Your task to perform on an android device: Search for hotels in Zurich Image 0: 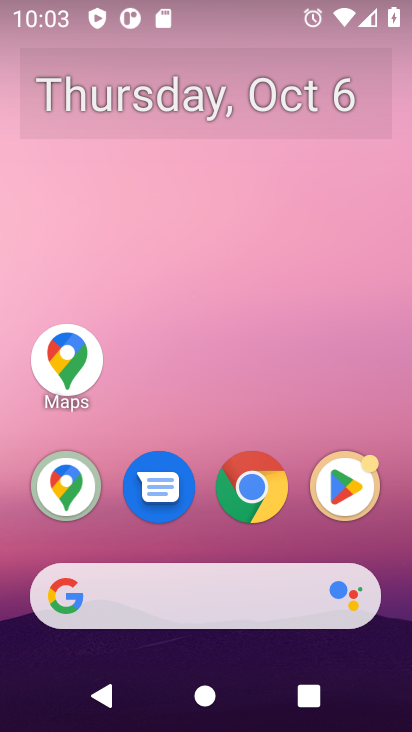
Step 0: drag from (185, 399) to (249, 28)
Your task to perform on an android device: Search for hotels in Zurich Image 1: 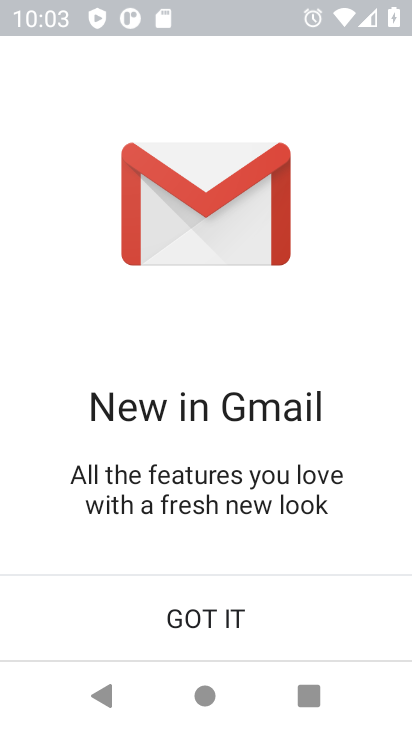
Step 1: press home button
Your task to perform on an android device: Search for hotels in Zurich Image 2: 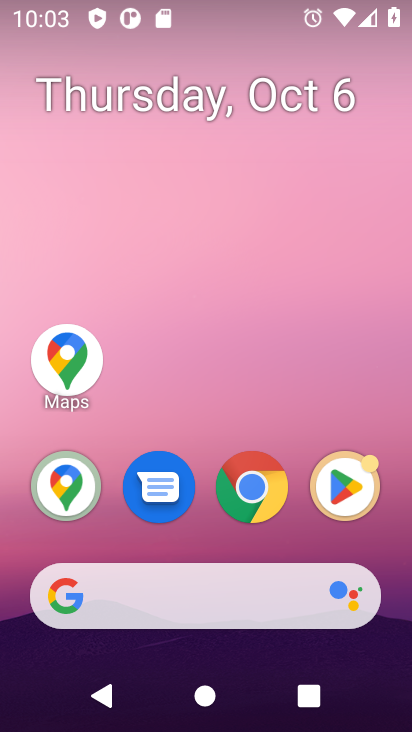
Step 2: drag from (205, 544) to (273, 26)
Your task to perform on an android device: Search for hotels in Zurich Image 3: 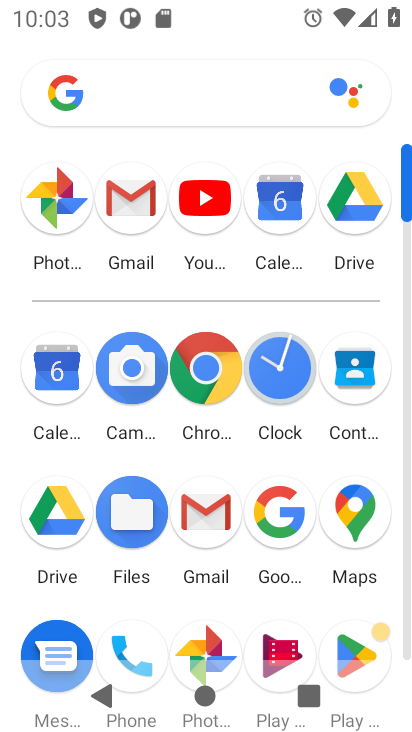
Step 3: click (198, 364)
Your task to perform on an android device: Search for hotels in Zurich Image 4: 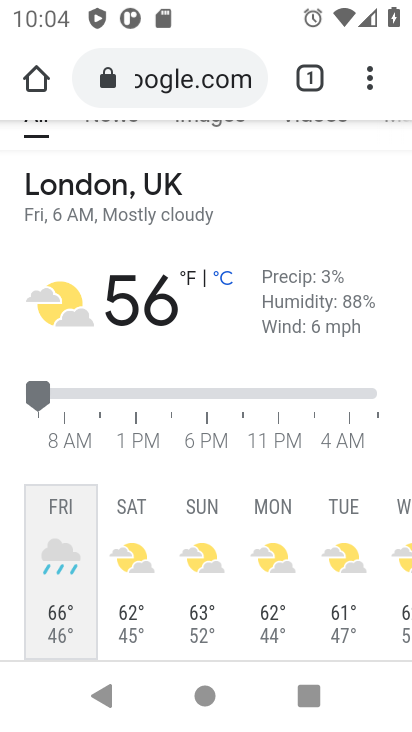
Step 4: click (182, 76)
Your task to perform on an android device: Search for hotels in Zurich Image 5: 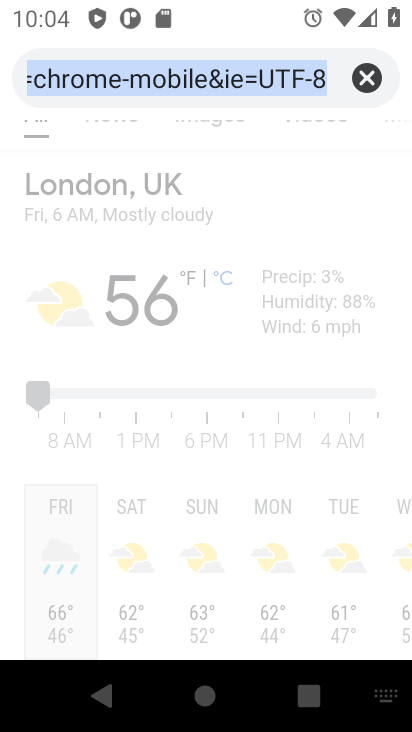
Step 5: click (357, 82)
Your task to perform on an android device: Search for hotels in Zurich Image 6: 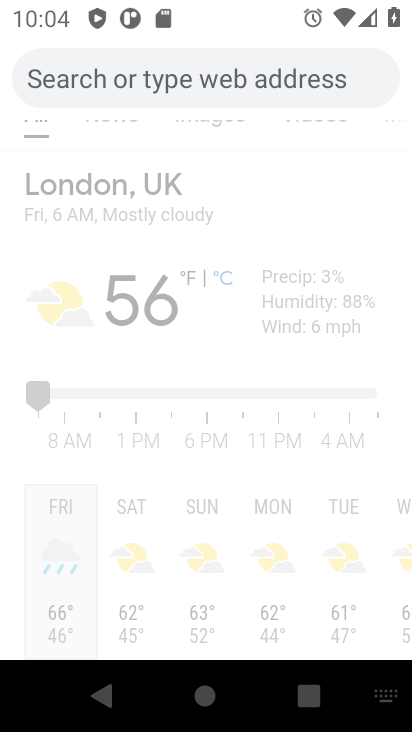
Step 6: type "Search for hotels in Zurich"
Your task to perform on an android device: Search for hotels in Zurich Image 7: 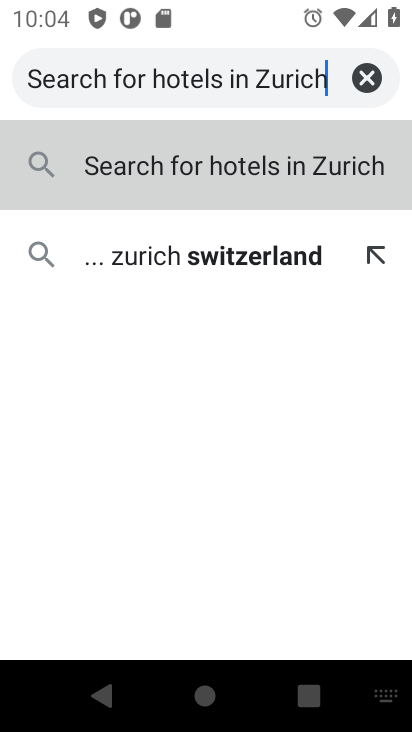
Step 7: press enter
Your task to perform on an android device: Search for hotels in Zurich Image 8: 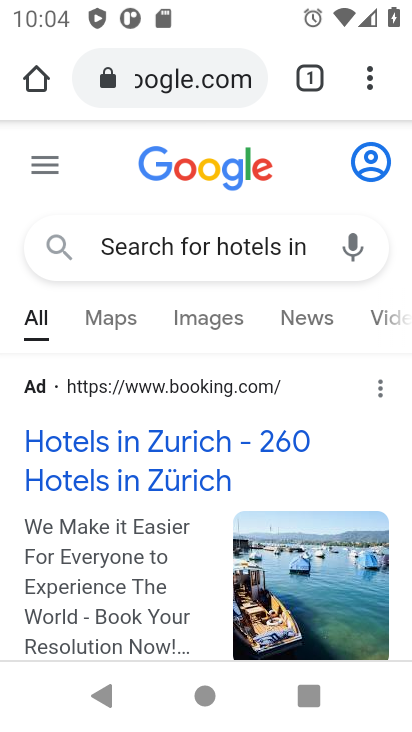
Step 8: drag from (224, 553) to (301, 327)
Your task to perform on an android device: Search for hotels in Zurich Image 9: 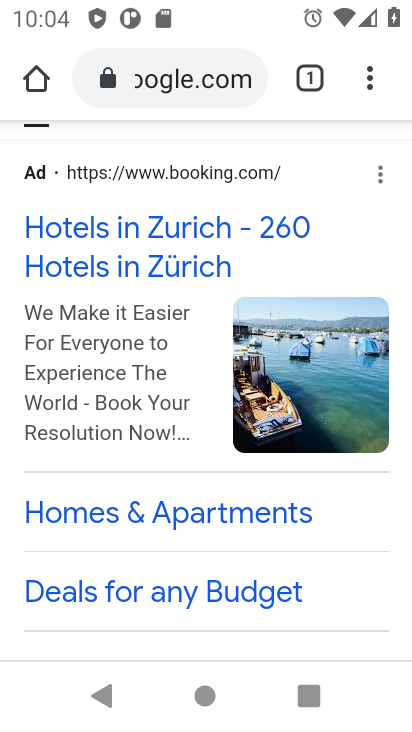
Step 9: click (200, 222)
Your task to perform on an android device: Search for hotels in Zurich Image 10: 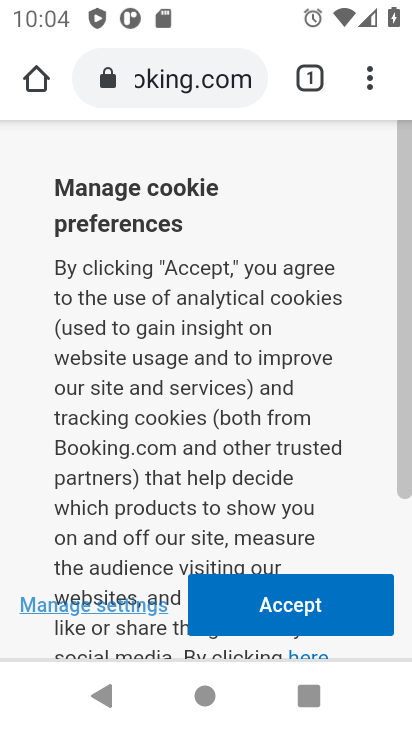
Step 10: drag from (277, 300) to (251, 613)
Your task to perform on an android device: Search for hotels in Zurich Image 11: 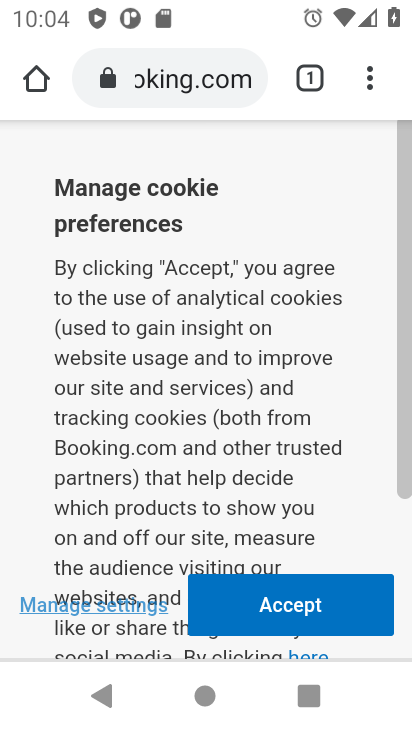
Step 11: drag from (244, 440) to (311, 138)
Your task to perform on an android device: Search for hotels in Zurich Image 12: 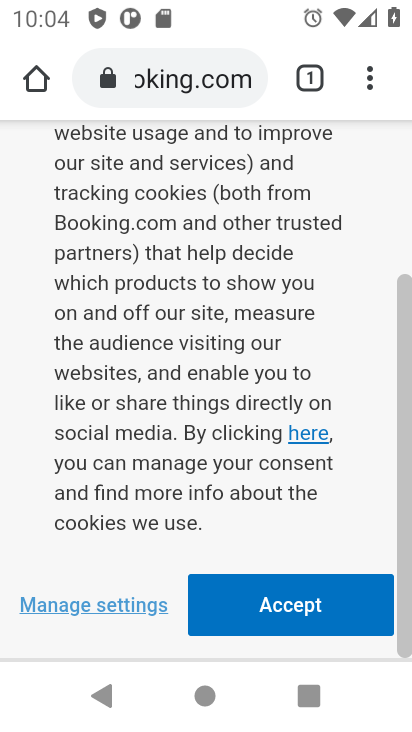
Step 12: click (296, 606)
Your task to perform on an android device: Search for hotels in Zurich Image 13: 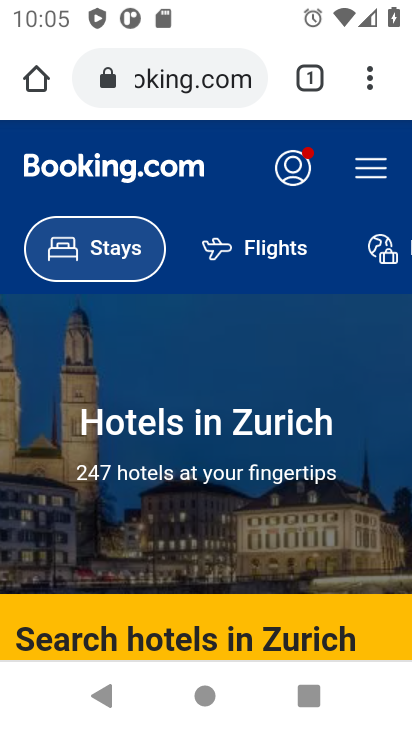
Step 13: task complete